Your task to perform on an android device: toggle notifications settings in the gmail app Image 0: 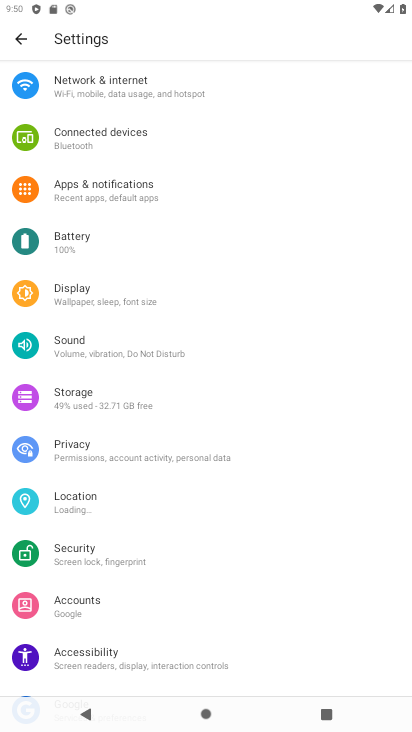
Step 0: press back button
Your task to perform on an android device: toggle notifications settings in the gmail app Image 1: 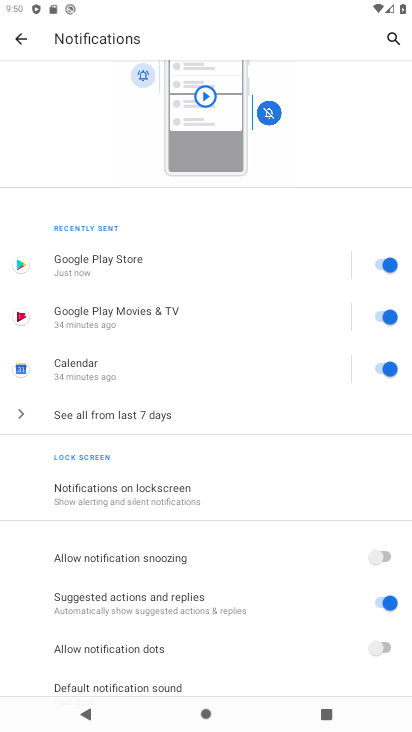
Step 1: press home button
Your task to perform on an android device: toggle notifications settings in the gmail app Image 2: 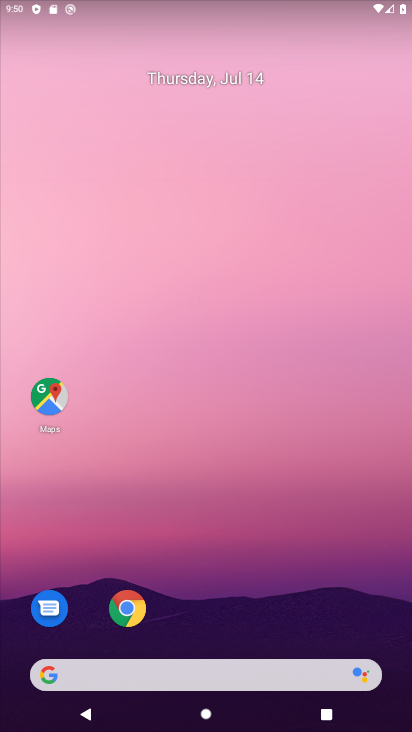
Step 2: drag from (169, 529) to (245, 28)
Your task to perform on an android device: toggle notifications settings in the gmail app Image 3: 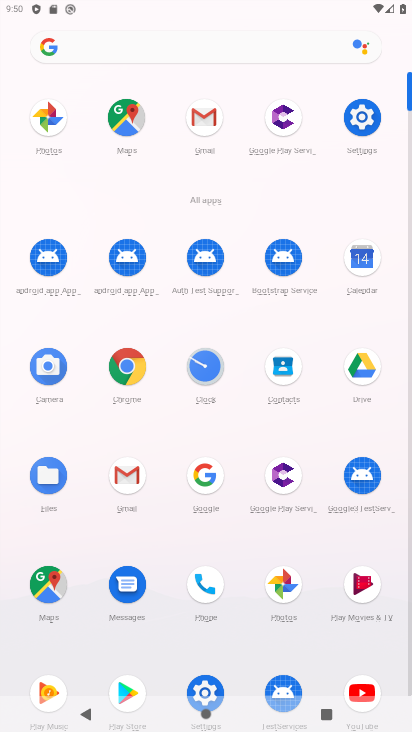
Step 3: click (203, 137)
Your task to perform on an android device: toggle notifications settings in the gmail app Image 4: 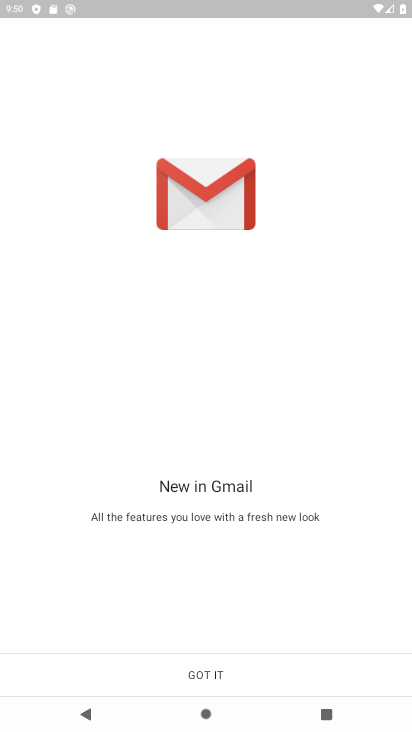
Step 4: click (199, 669)
Your task to perform on an android device: toggle notifications settings in the gmail app Image 5: 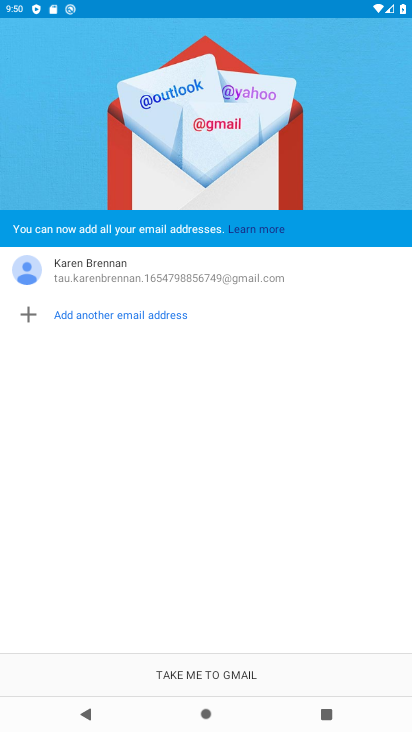
Step 5: click (203, 670)
Your task to perform on an android device: toggle notifications settings in the gmail app Image 6: 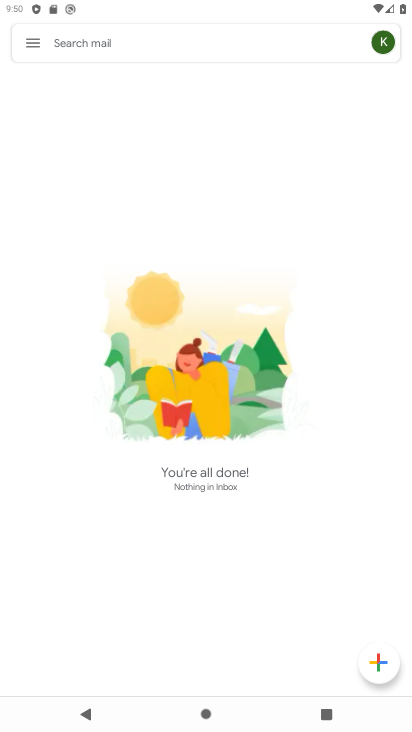
Step 6: click (29, 37)
Your task to perform on an android device: toggle notifications settings in the gmail app Image 7: 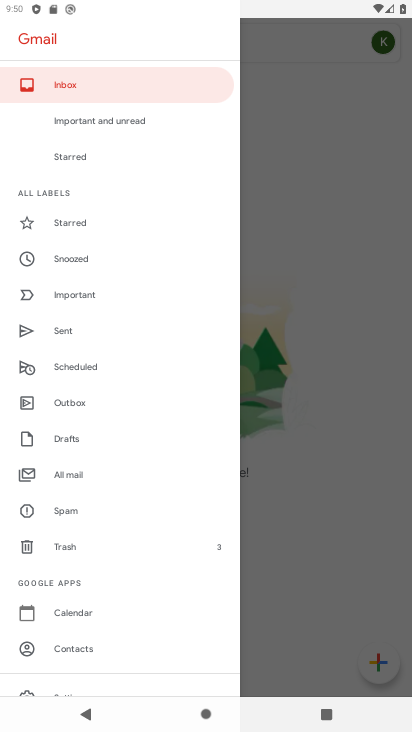
Step 7: drag from (121, 617) to (168, 224)
Your task to perform on an android device: toggle notifications settings in the gmail app Image 8: 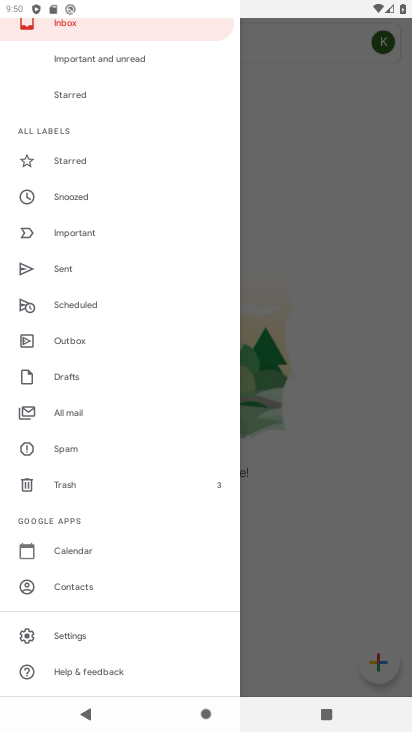
Step 8: click (62, 634)
Your task to perform on an android device: toggle notifications settings in the gmail app Image 9: 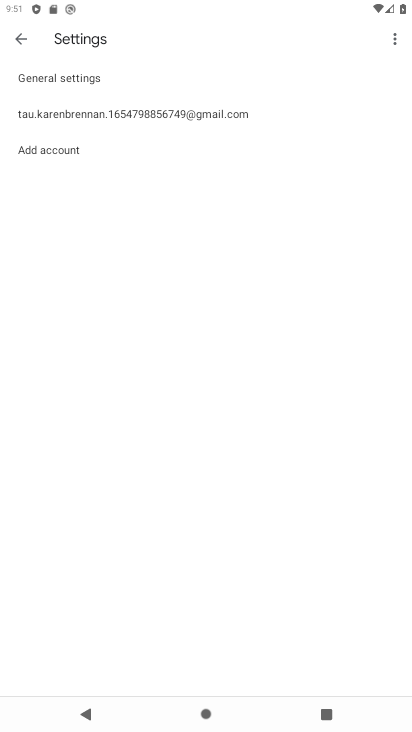
Step 9: click (105, 109)
Your task to perform on an android device: toggle notifications settings in the gmail app Image 10: 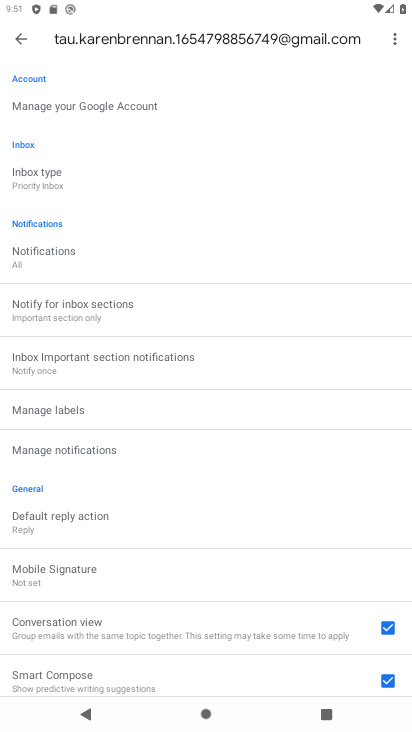
Step 10: click (89, 310)
Your task to perform on an android device: toggle notifications settings in the gmail app Image 11: 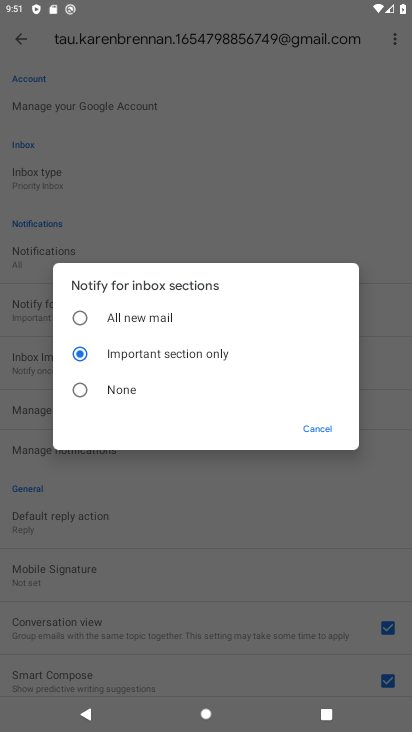
Step 11: click (316, 431)
Your task to perform on an android device: toggle notifications settings in the gmail app Image 12: 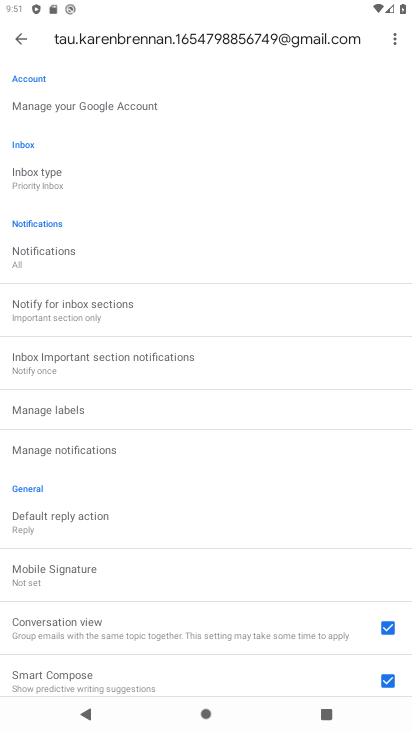
Step 12: click (50, 450)
Your task to perform on an android device: toggle notifications settings in the gmail app Image 13: 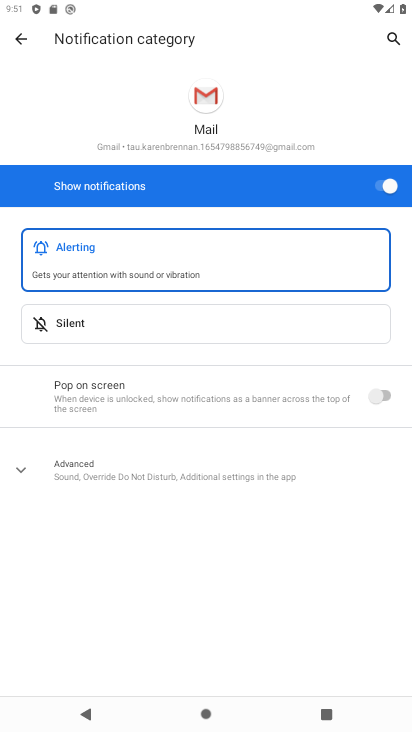
Step 13: click (380, 183)
Your task to perform on an android device: toggle notifications settings in the gmail app Image 14: 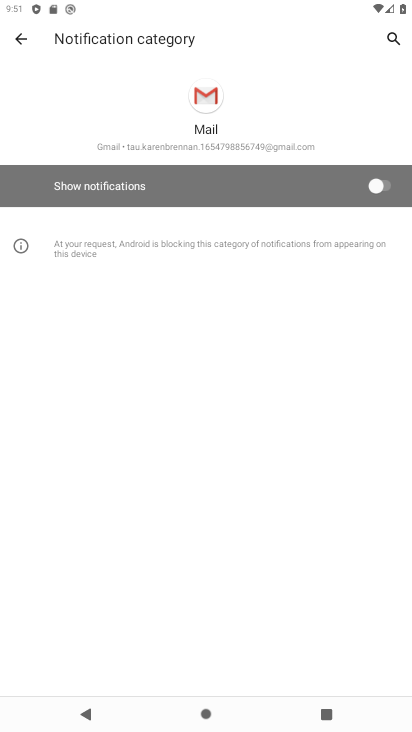
Step 14: task complete